Your task to perform on an android device: Open settings on Google Maps Image 0: 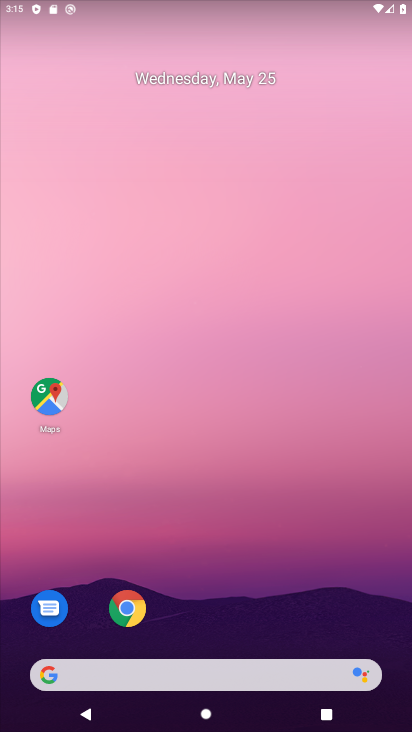
Step 0: click (49, 394)
Your task to perform on an android device: Open settings on Google Maps Image 1: 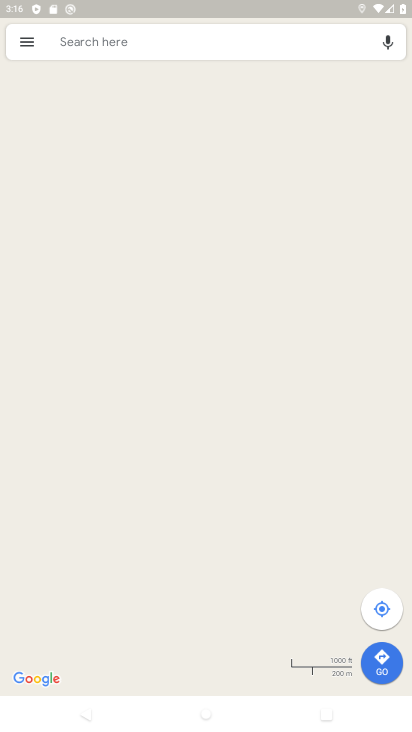
Step 1: click (21, 42)
Your task to perform on an android device: Open settings on Google Maps Image 2: 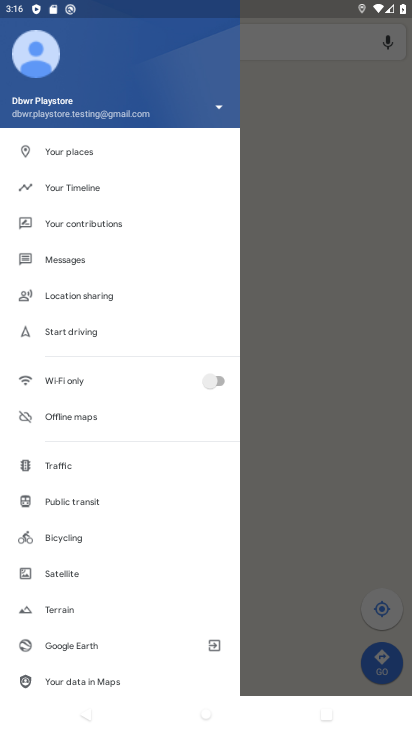
Step 2: drag from (80, 673) to (125, 15)
Your task to perform on an android device: Open settings on Google Maps Image 3: 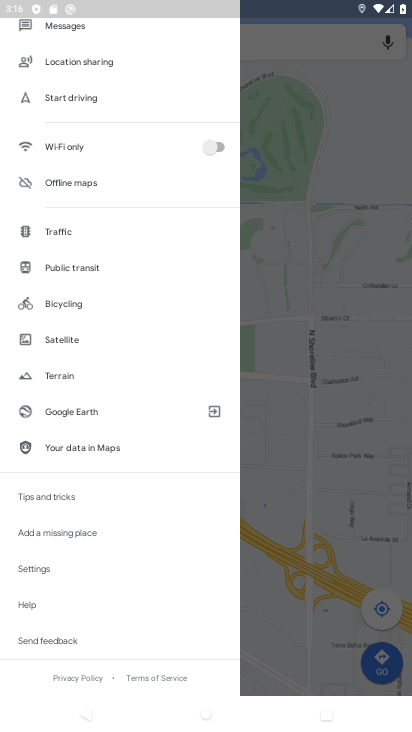
Step 3: click (29, 572)
Your task to perform on an android device: Open settings on Google Maps Image 4: 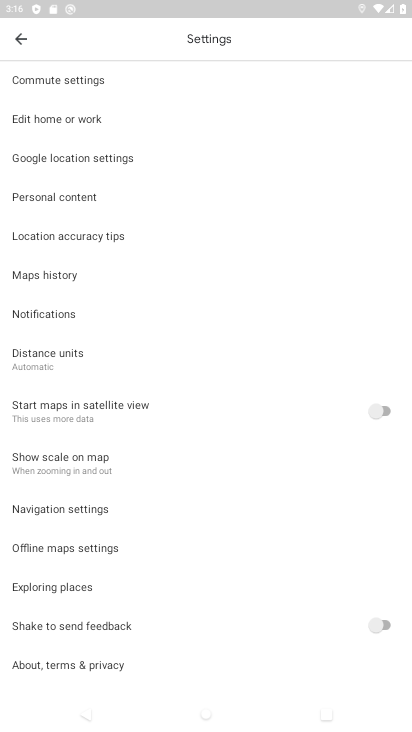
Step 4: task complete